Your task to perform on an android device: search for starred emails in the gmail app Image 0: 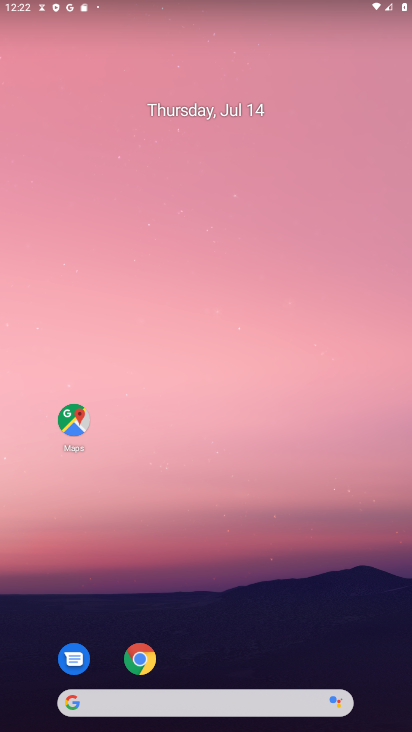
Step 0: drag from (32, 677) to (161, 108)
Your task to perform on an android device: search for starred emails in the gmail app Image 1: 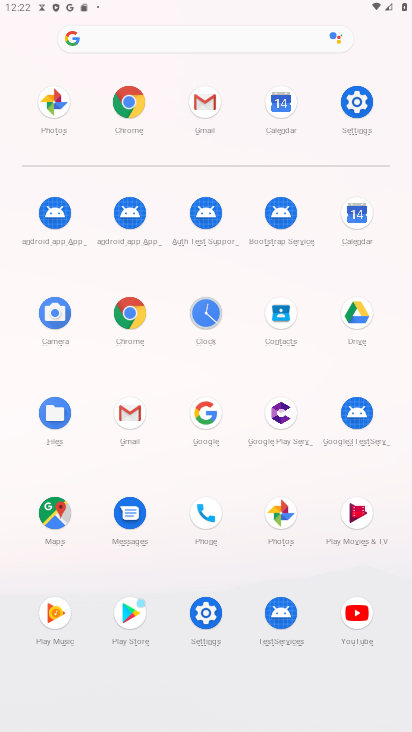
Step 1: click (131, 425)
Your task to perform on an android device: search for starred emails in the gmail app Image 2: 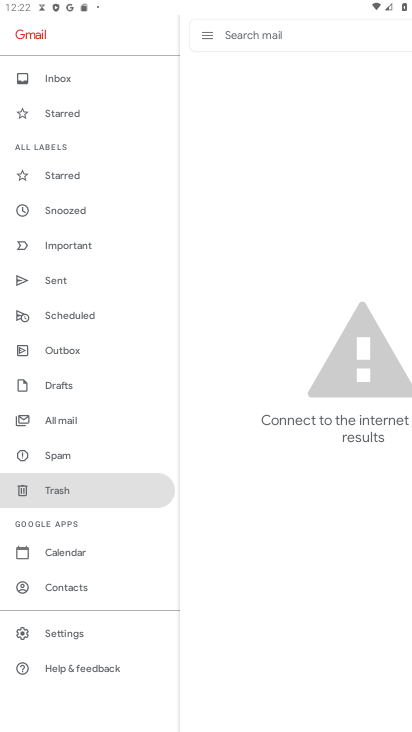
Step 2: click (63, 152)
Your task to perform on an android device: search for starred emails in the gmail app Image 3: 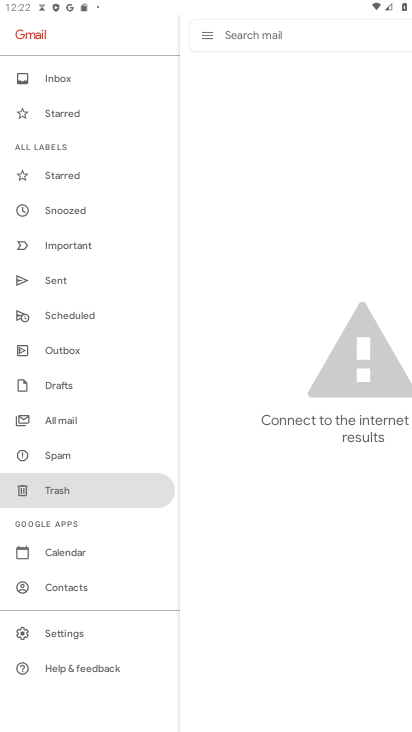
Step 3: click (73, 176)
Your task to perform on an android device: search for starred emails in the gmail app Image 4: 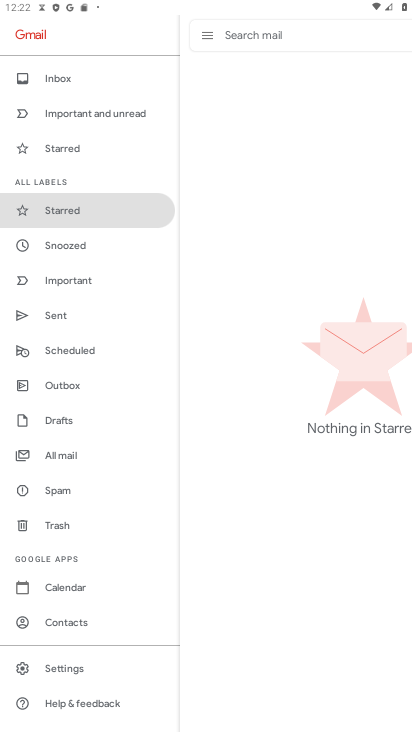
Step 4: task complete